Your task to perform on an android device: check battery use Image 0: 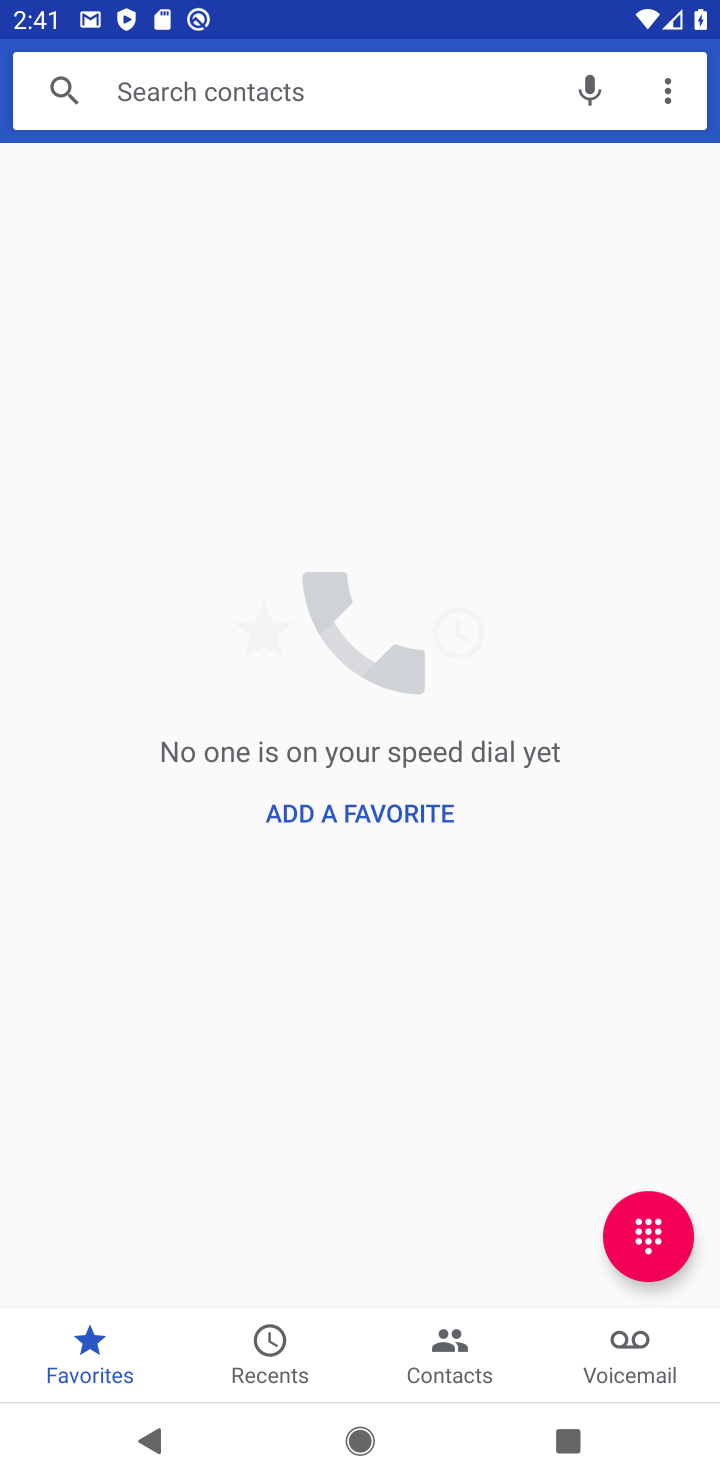
Step 0: press back button
Your task to perform on an android device: check battery use Image 1: 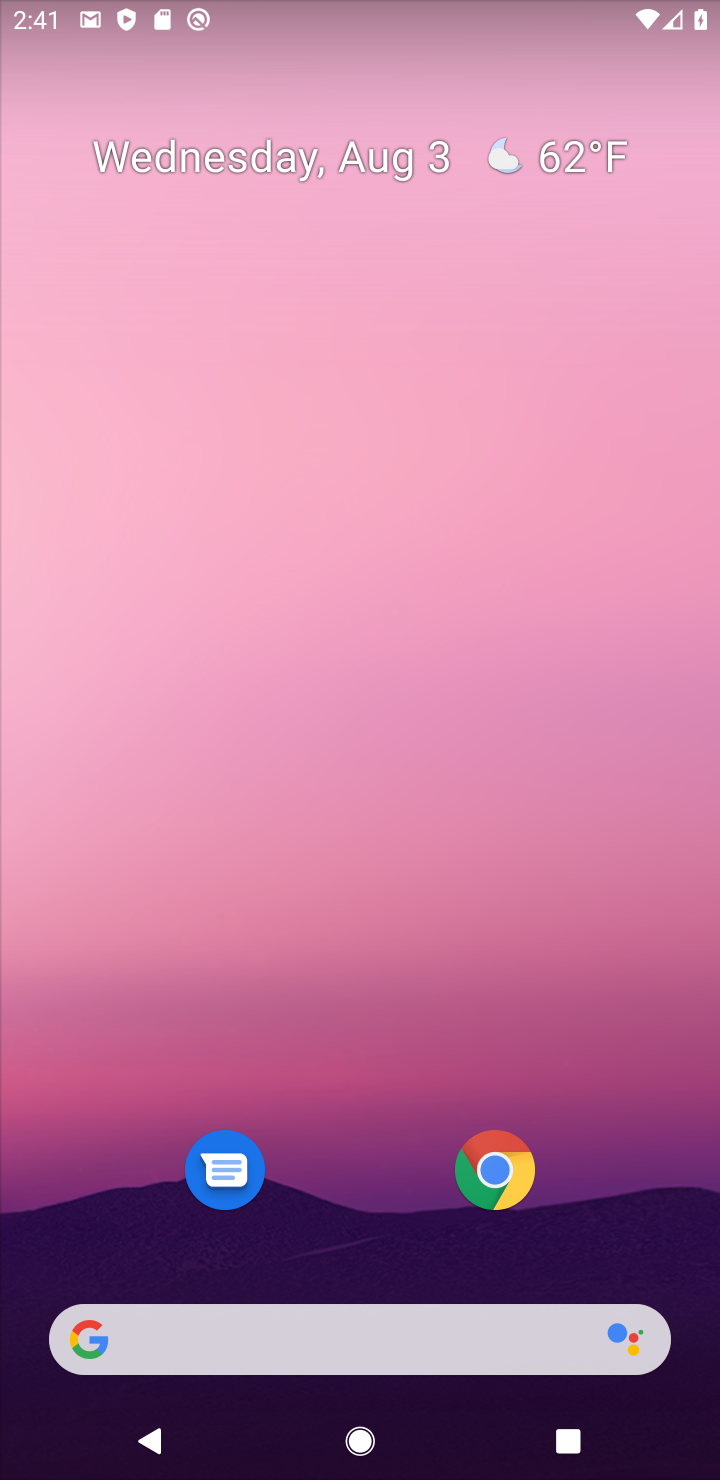
Step 1: drag from (337, 315) to (409, 124)
Your task to perform on an android device: check battery use Image 2: 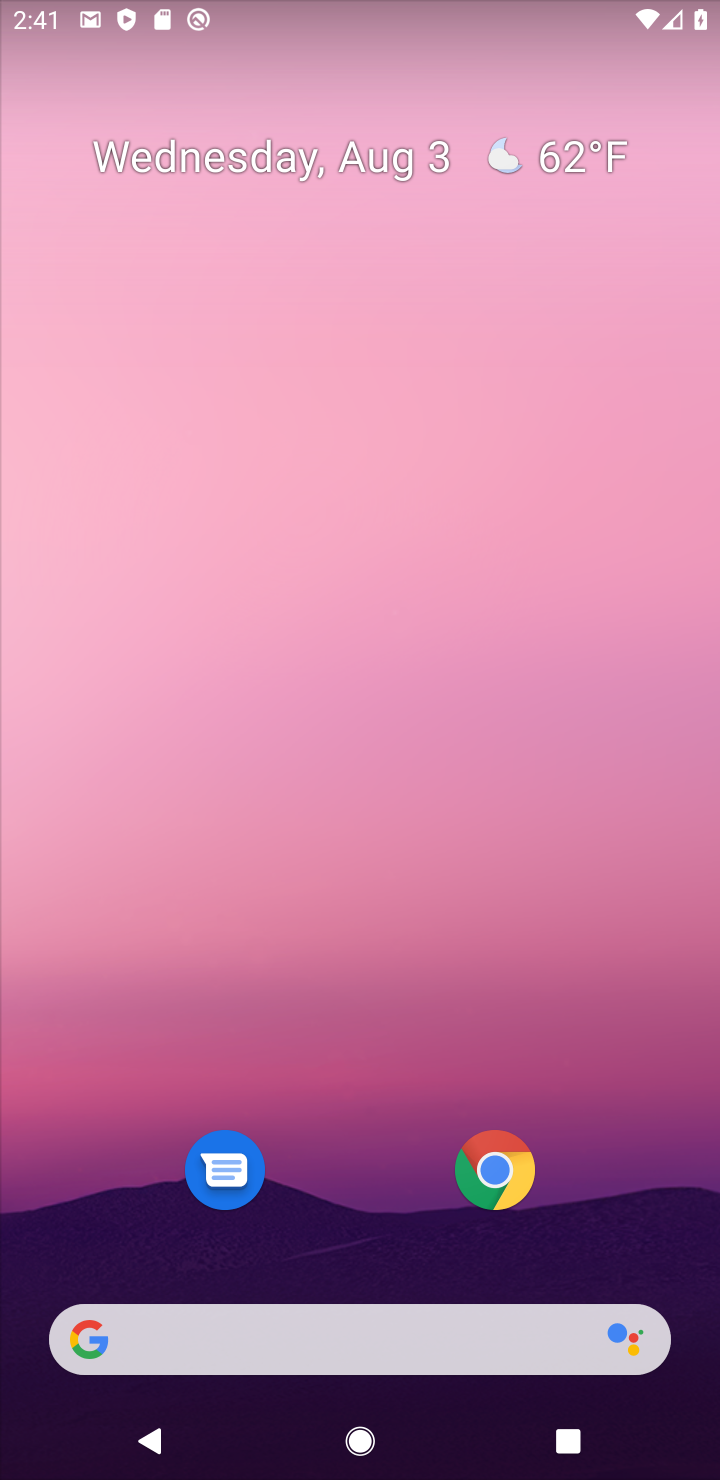
Step 2: drag from (339, 878) to (369, 215)
Your task to perform on an android device: check battery use Image 3: 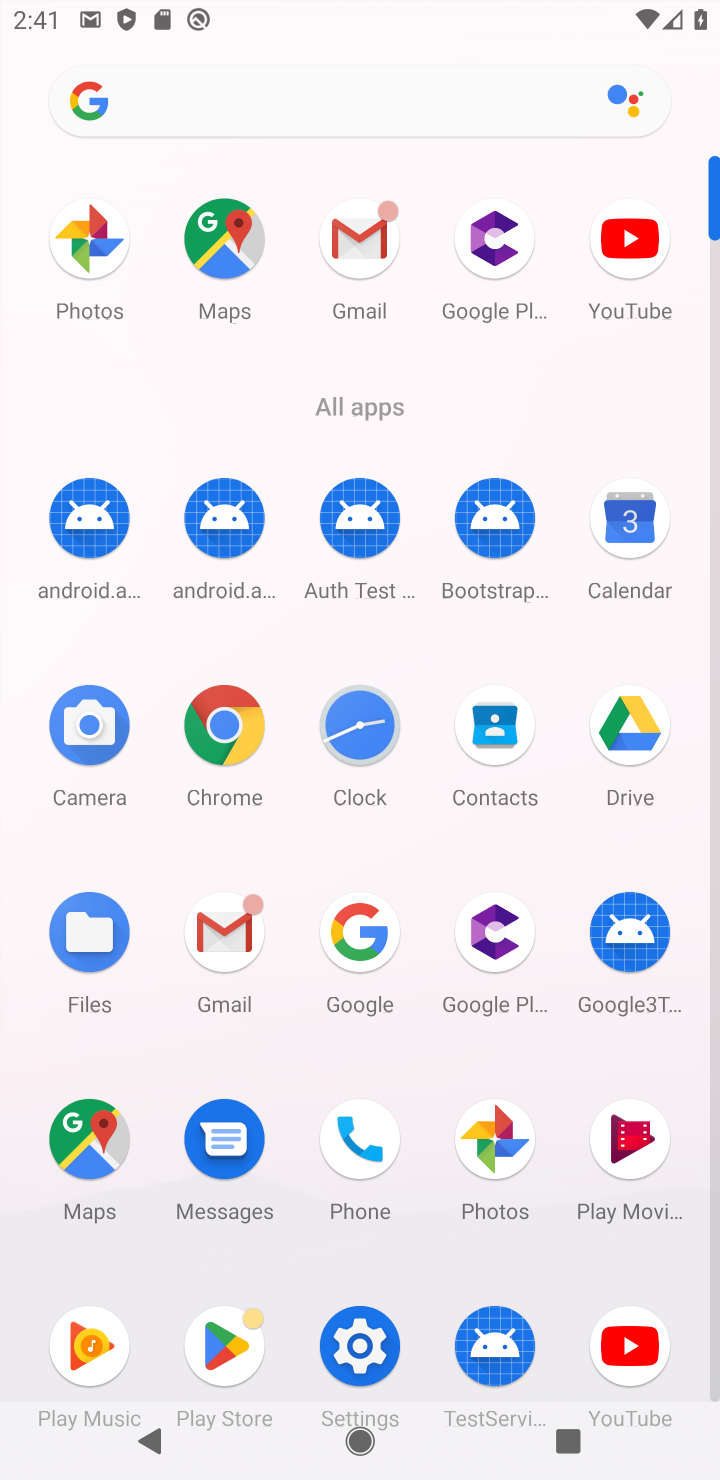
Step 3: click (363, 1328)
Your task to perform on an android device: check battery use Image 4: 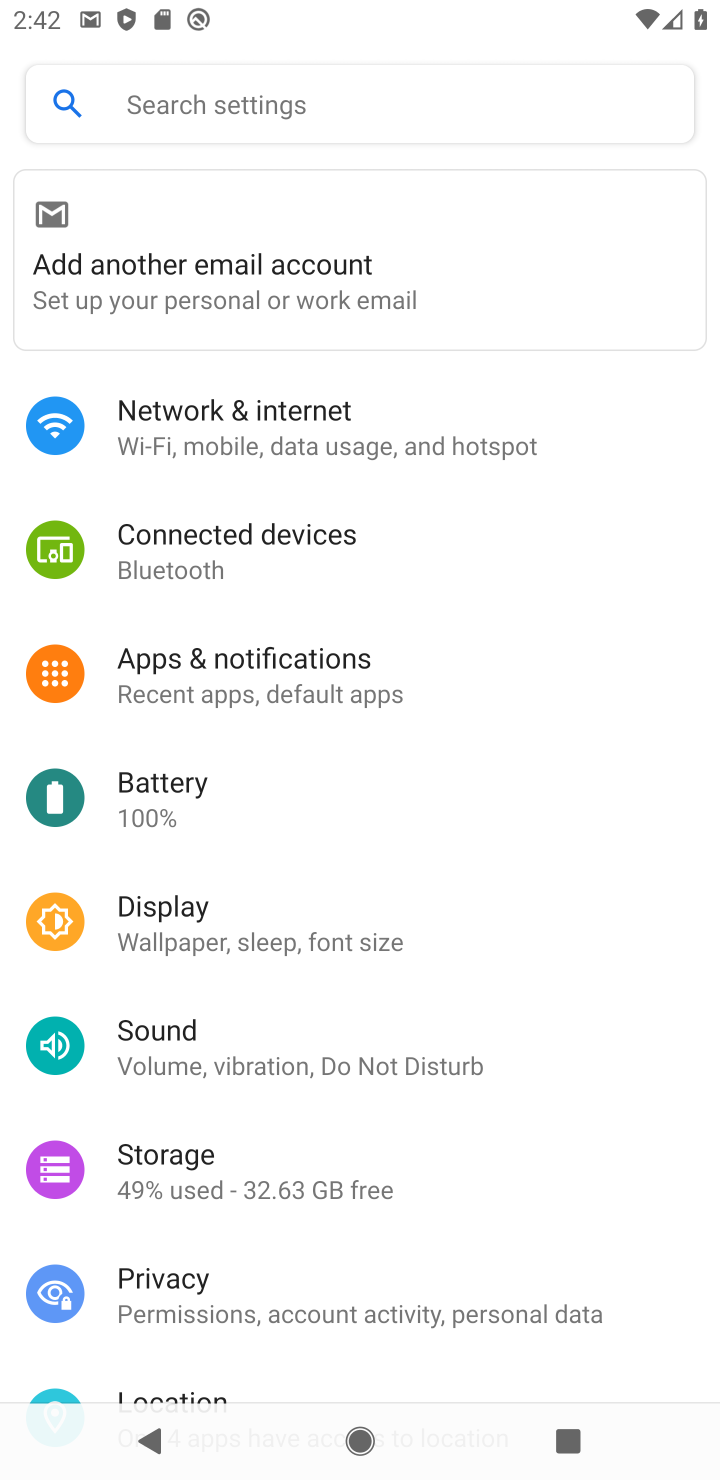
Step 4: click (166, 787)
Your task to perform on an android device: check battery use Image 5: 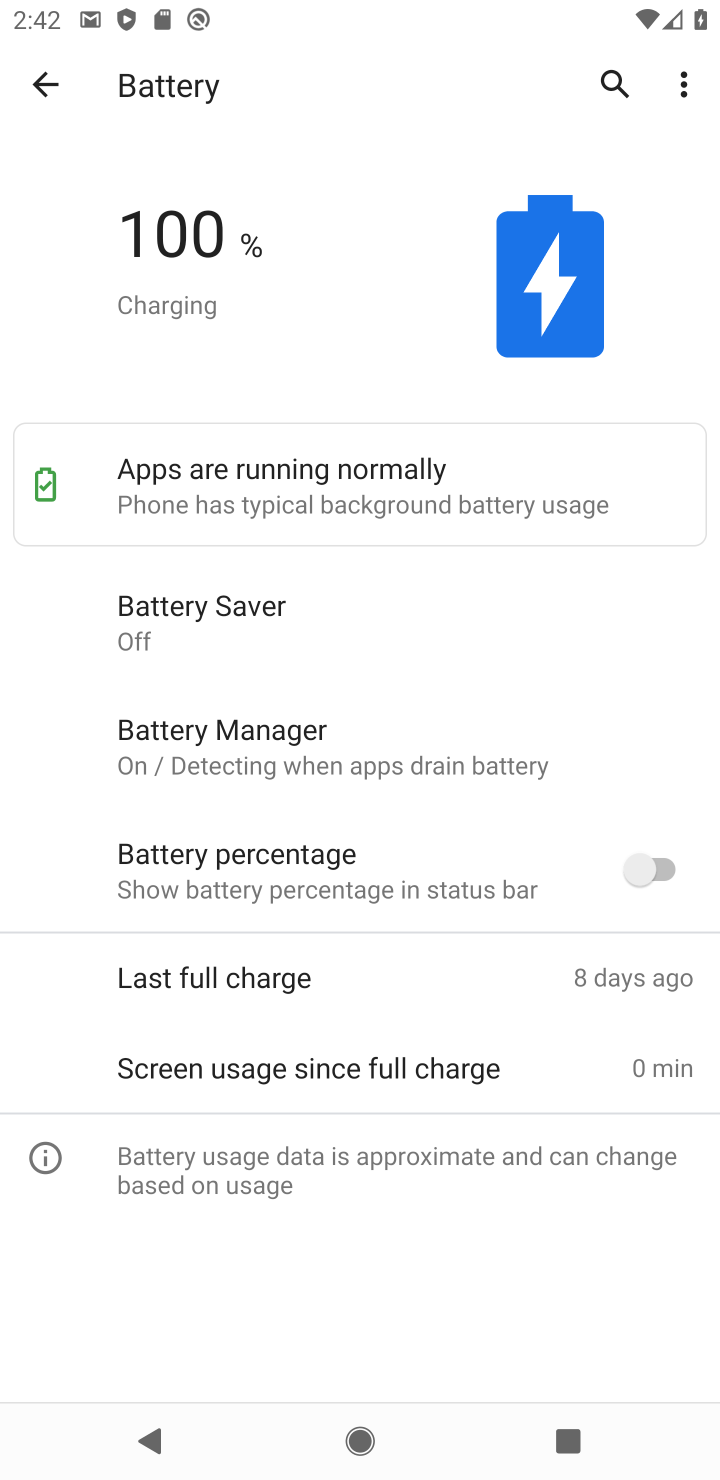
Step 5: task complete